Your task to perform on an android device: change keyboard looks Image 0: 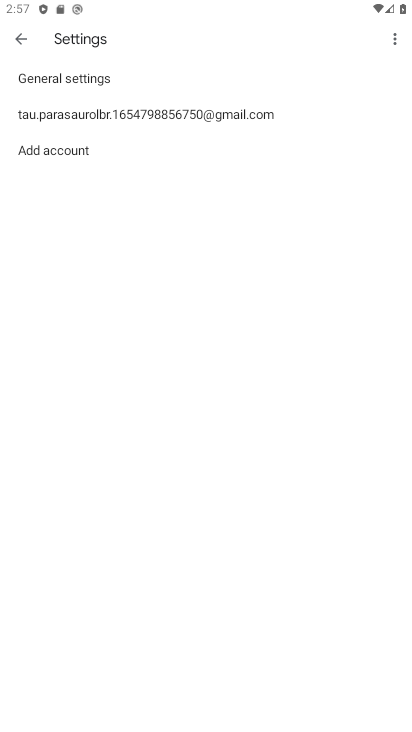
Step 0: press home button
Your task to perform on an android device: change keyboard looks Image 1: 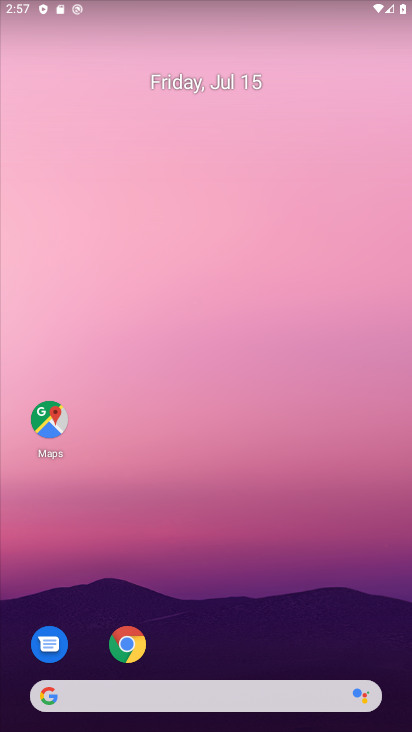
Step 1: drag from (249, 613) to (260, 13)
Your task to perform on an android device: change keyboard looks Image 2: 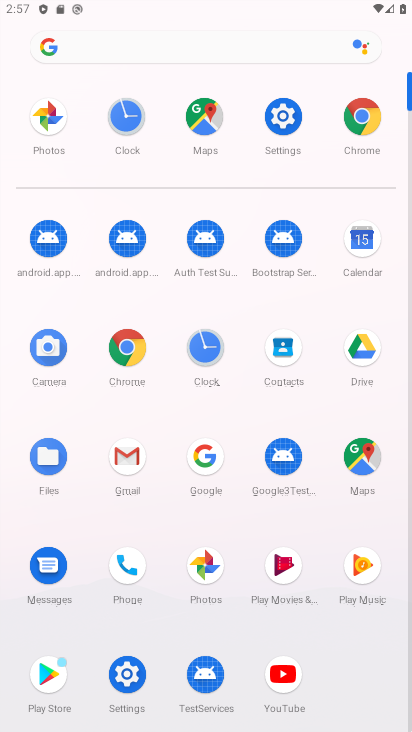
Step 2: click (291, 128)
Your task to perform on an android device: change keyboard looks Image 3: 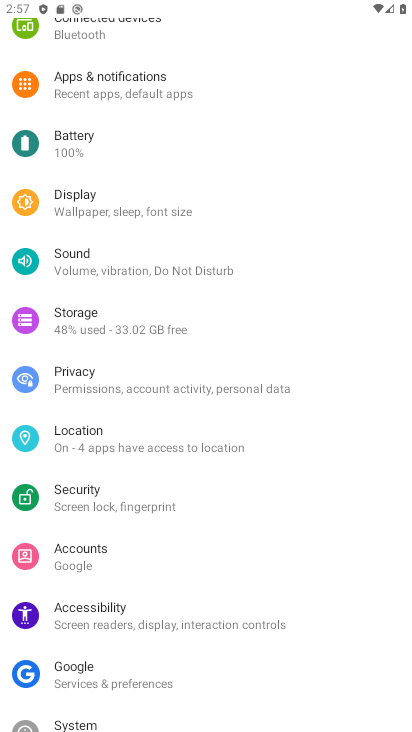
Step 3: drag from (124, 648) to (173, 161)
Your task to perform on an android device: change keyboard looks Image 4: 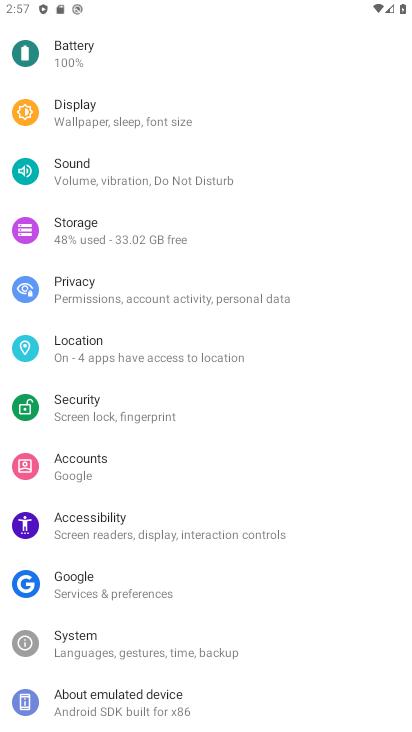
Step 4: click (115, 523)
Your task to perform on an android device: change keyboard looks Image 5: 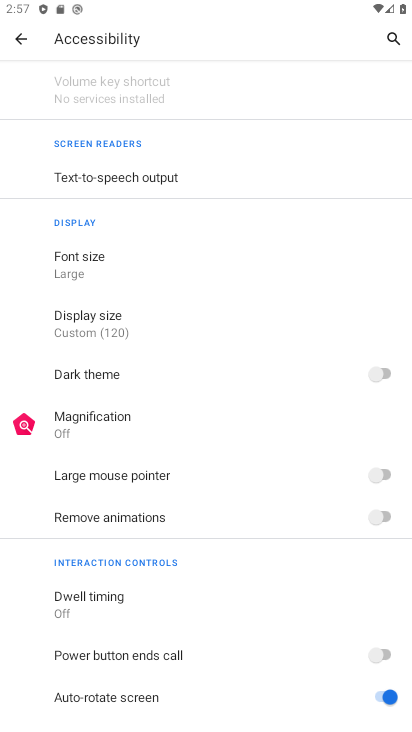
Step 5: press back button
Your task to perform on an android device: change keyboard looks Image 6: 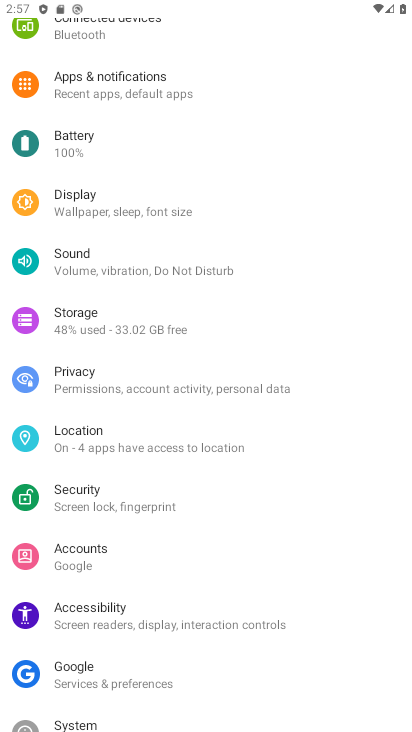
Step 6: drag from (98, 671) to (145, 218)
Your task to perform on an android device: change keyboard looks Image 7: 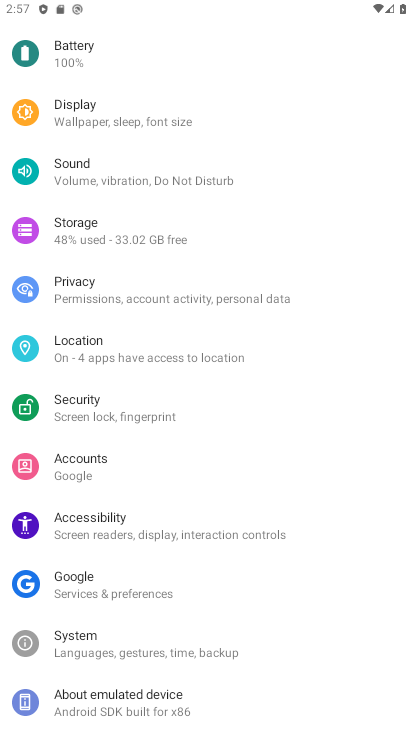
Step 7: click (141, 644)
Your task to perform on an android device: change keyboard looks Image 8: 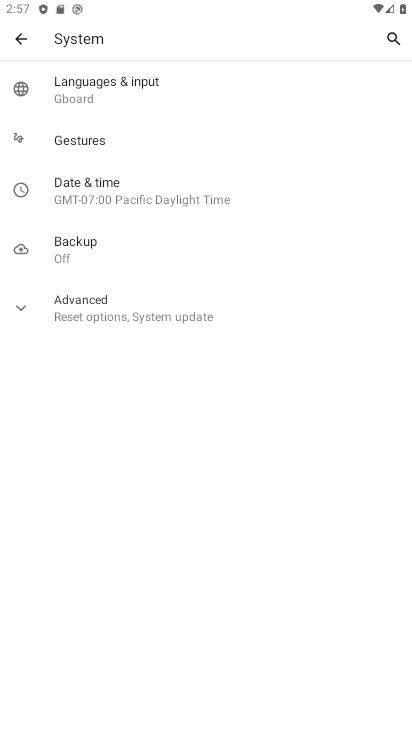
Step 8: click (111, 82)
Your task to perform on an android device: change keyboard looks Image 9: 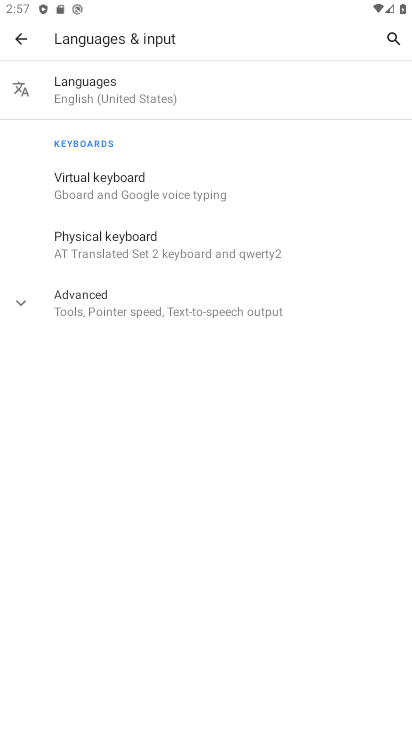
Step 9: click (112, 181)
Your task to perform on an android device: change keyboard looks Image 10: 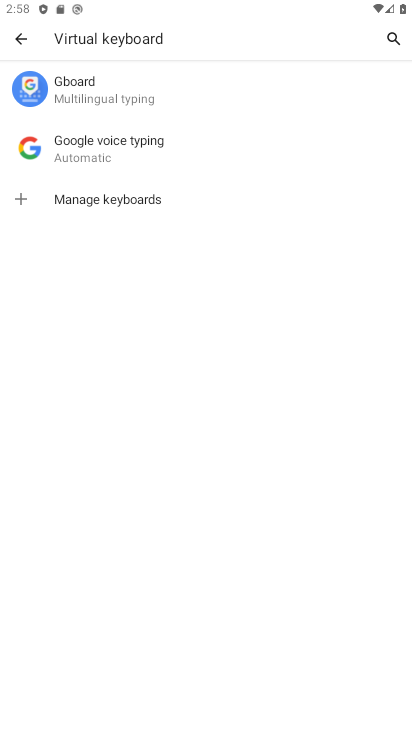
Step 10: click (127, 95)
Your task to perform on an android device: change keyboard looks Image 11: 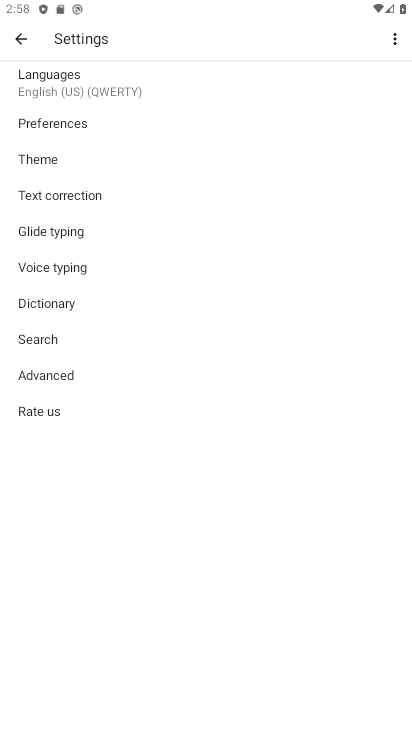
Step 11: click (72, 158)
Your task to perform on an android device: change keyboard looks Image 12: 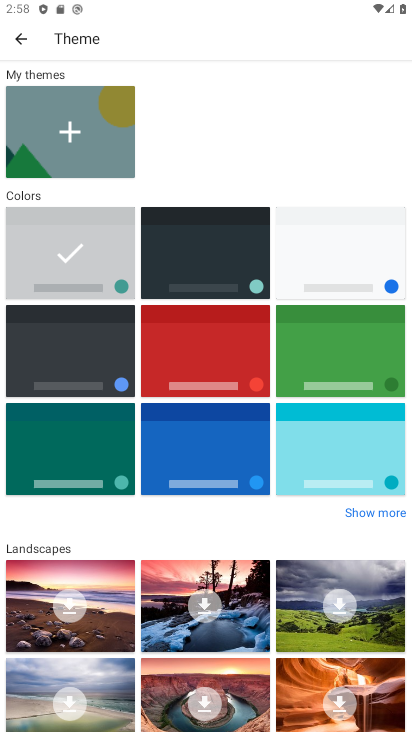
Step 12: click (209, 421)
Your task to perform on an android device: change keyboard looks Image 13: 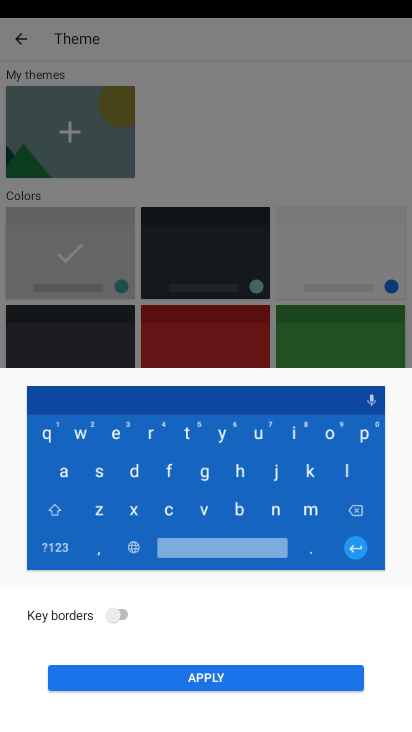
Step 13: click (227, 666)
Your task to perform on an android device: change keyboard looks Image 14: 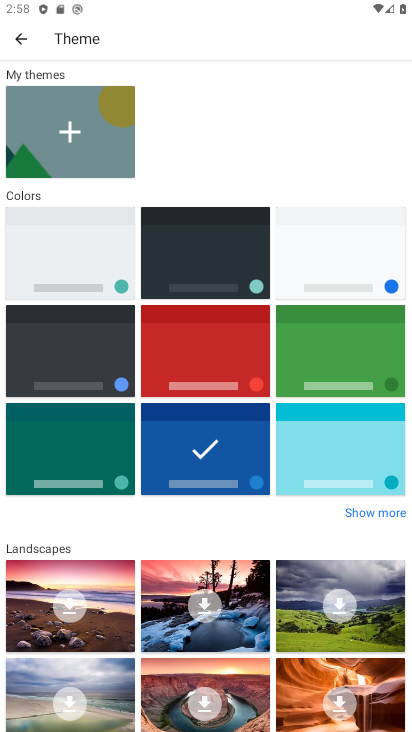
Step 14: task complete